Your task to perform on an android device: Open notification settings Image 0: 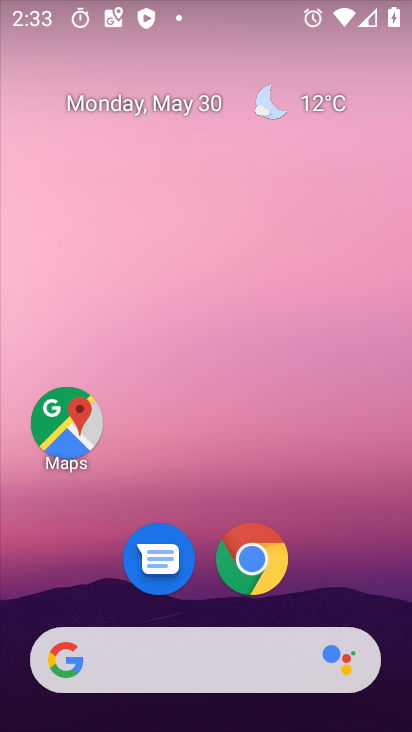
Step 0: drag from (190, 479) to (230, 21)
Your task to perform on an android device: Open notification settings Image 1: 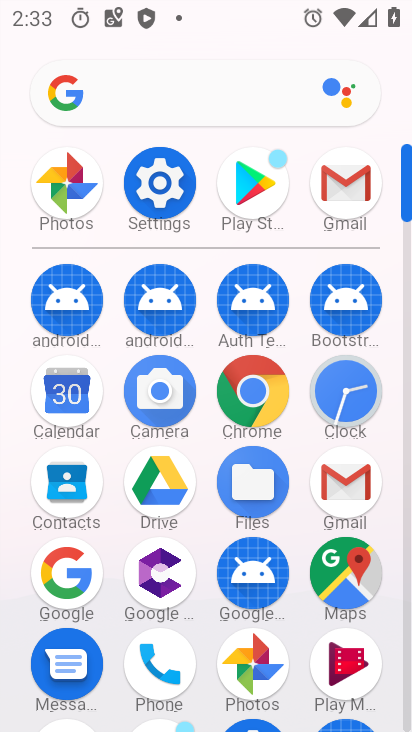
Step 1: click (154, 191)
Your task to perform on an android device: Open notification settings Image 2: 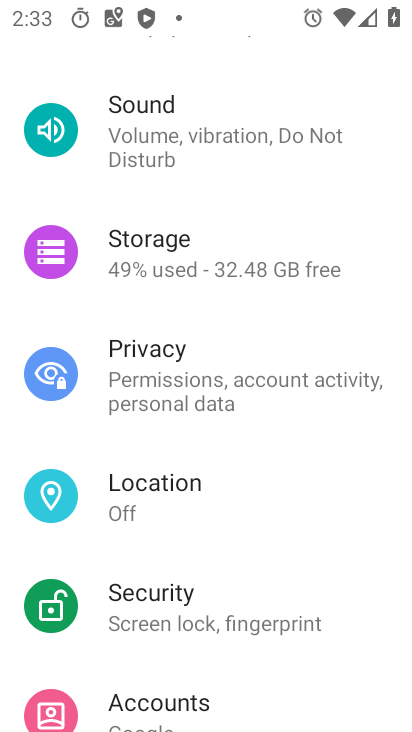
Step 2: drag from (244, 164) to (168, 708)
Your task to perform on an android device: Open notification settings Image 3: 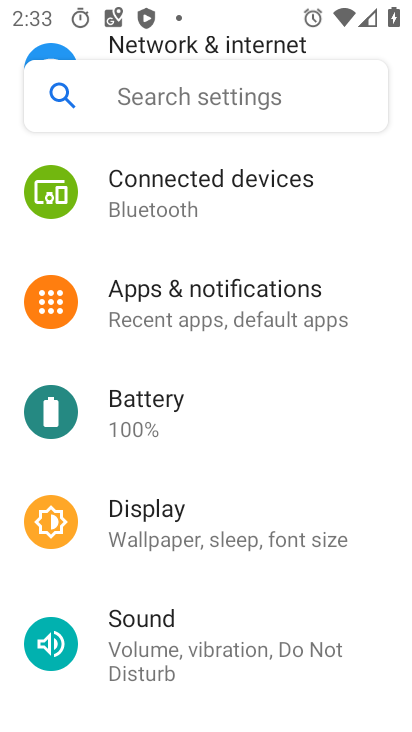
Step 3: drag from (224, 248) to (224, 586)
Your task to perform on an android device: Open notification settings Image 4: 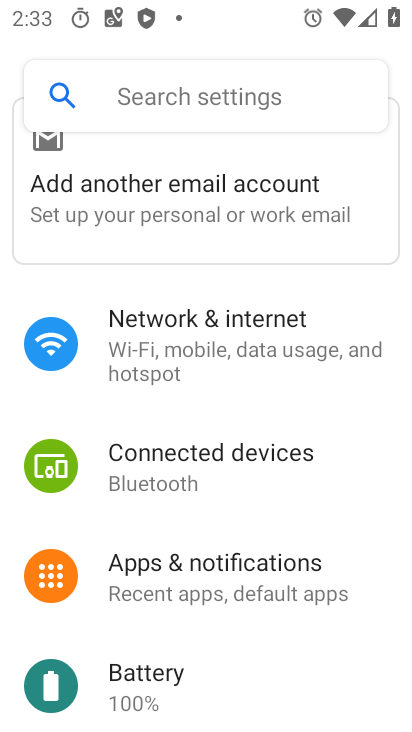
Step 4: click (164, 512)
Your task to perform on an android device: Open notification settings Image 5: 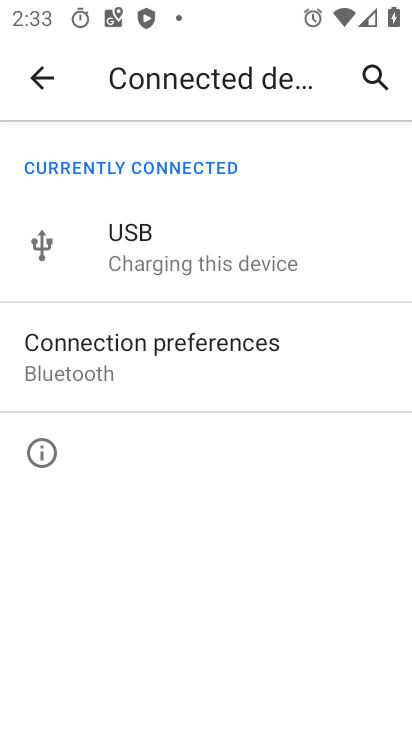
Step 5: task complete